Your task to perform on an android device: Search for the most popular coffee table on Crate & Barrel Image 0: 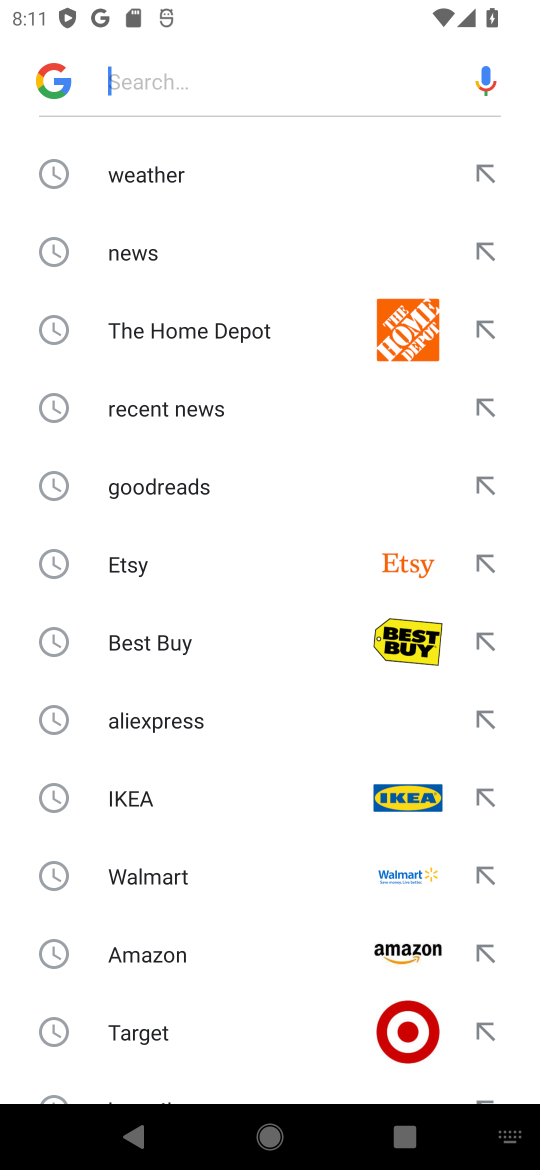
Step 0: press home button
Your task to perform on an android device: Search for the most popular coffee table on Crate & Barrel Image 1: 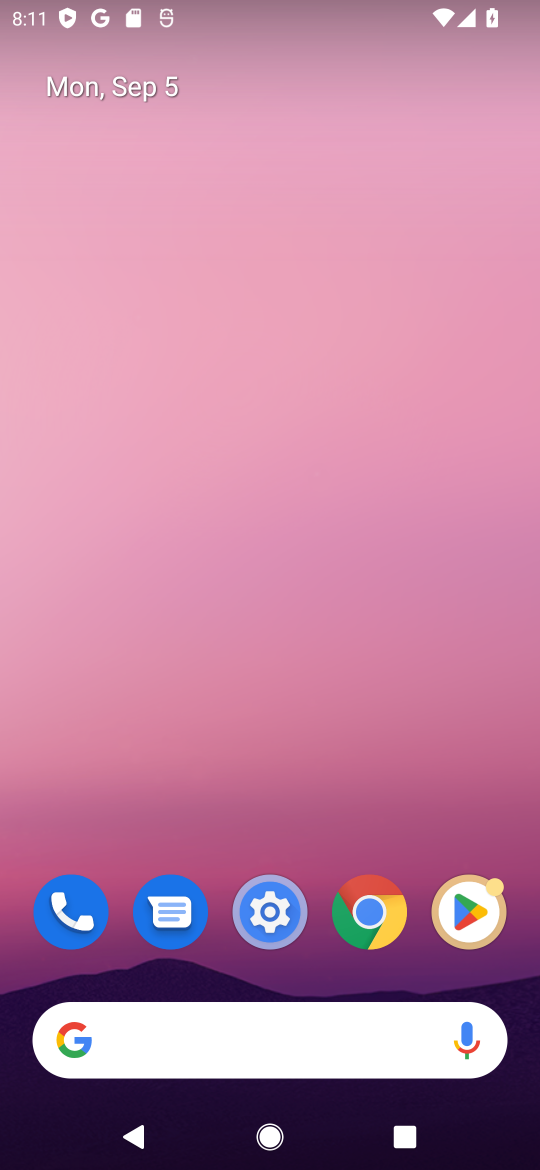
Step 1: click (365, 910)
Your task to perform on an android device: Search for the most popular coffee table on Crate & Barrel Image 2: 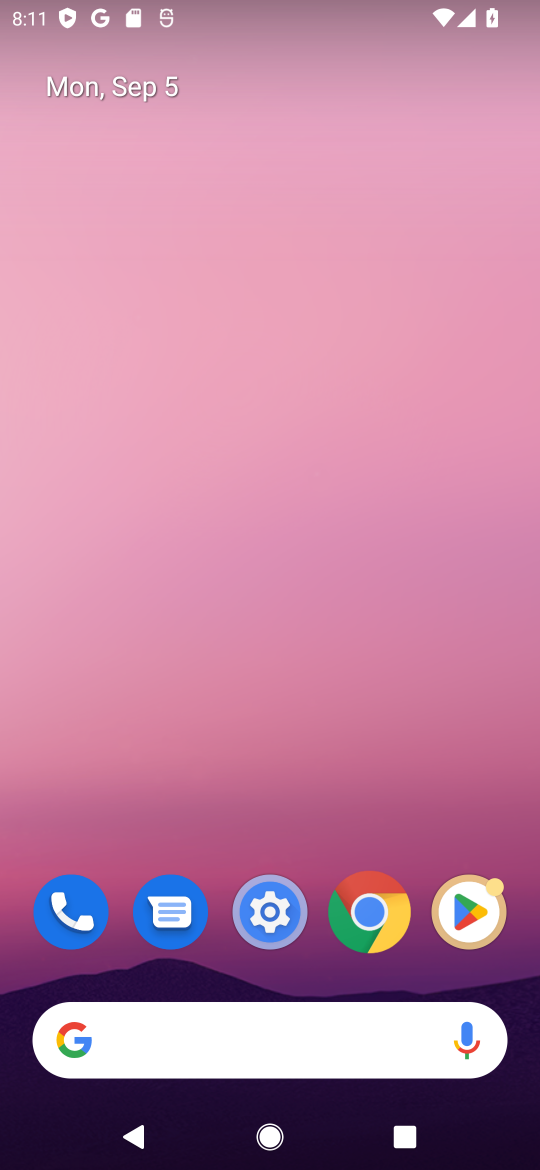
Step 2: click (369, 912)
Your task to perform on an android device: Search for the most popular coffee table on Crate & Barrel Image 3: 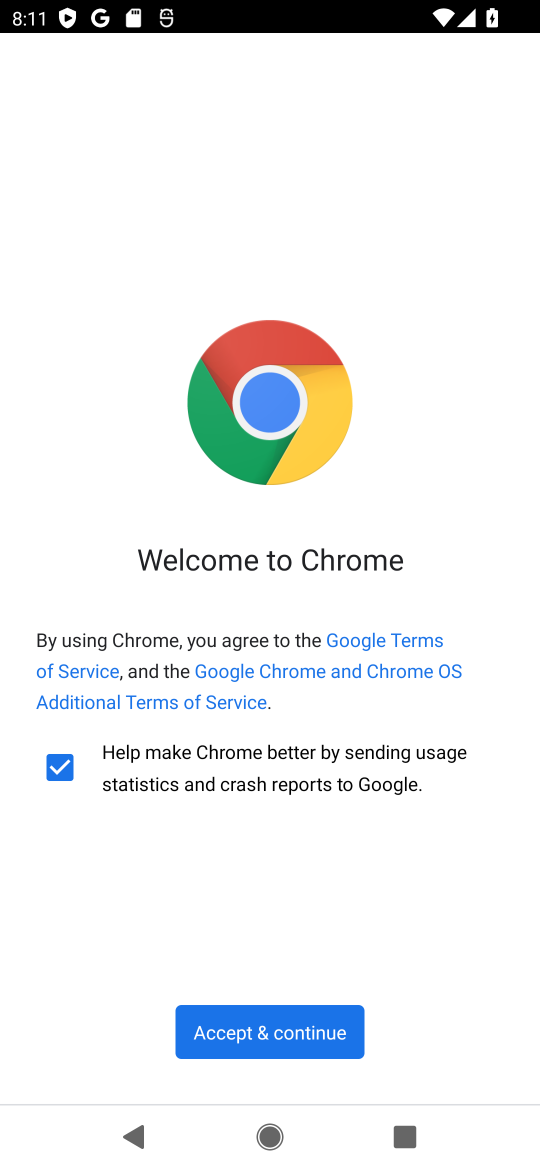
Step 3: click (318, 1032)
Your task to perform on an android device: Search for the most popular coffee table on Crate & Barrel Image 4: 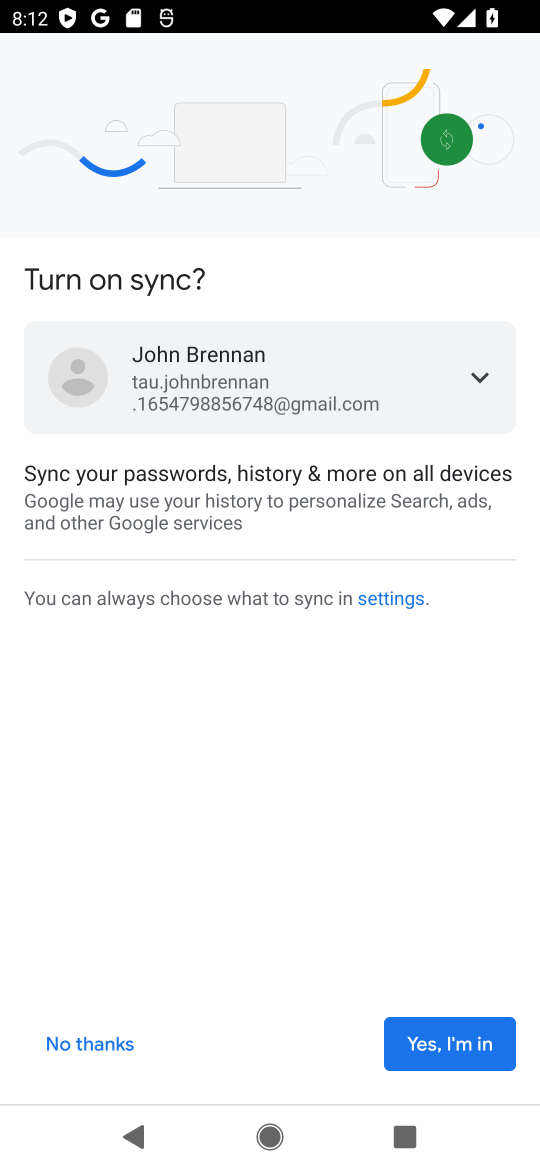
Step 4: click (460, 1044)
Your task to perform on an android device: Search for the most popular coffee table on Crate & Barrel Image 5: 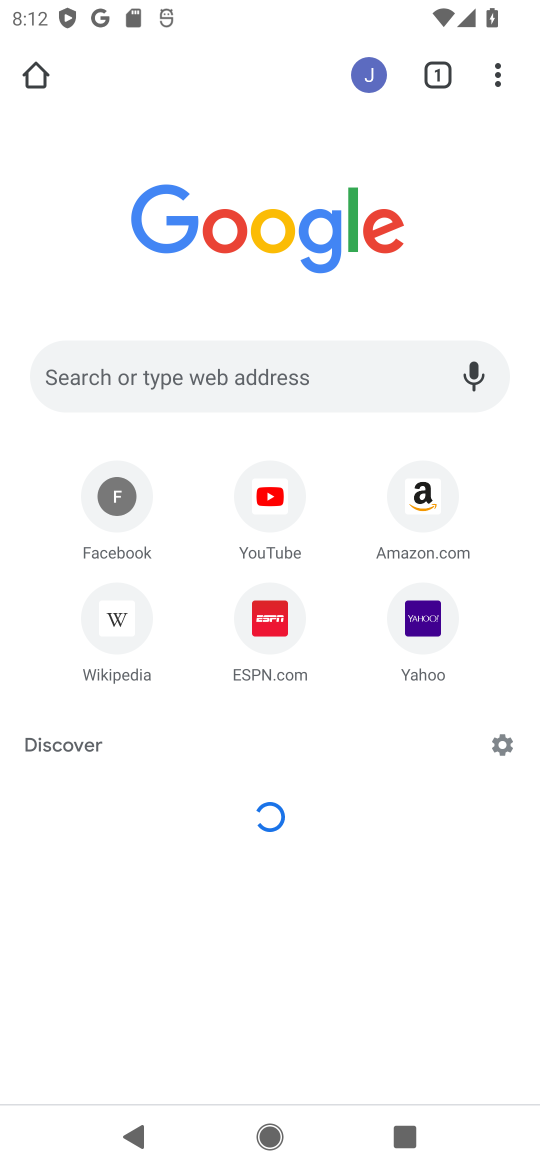
Step 5: click (216, 380)
Your task to perform on an android device: Search for the most popular coffee table on Crate & Barrel Image 6: 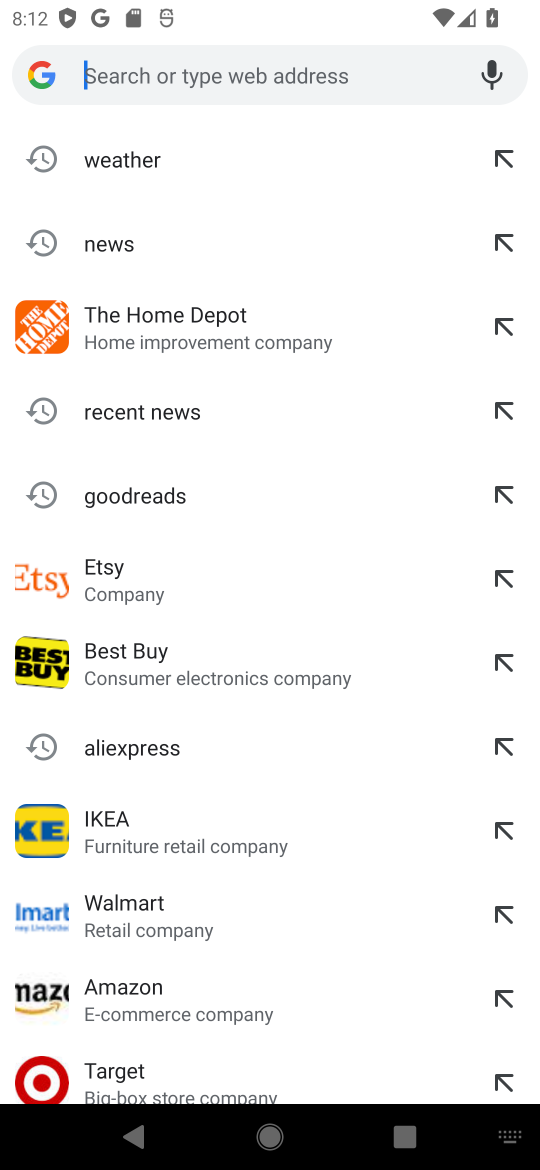
Step 6: type "crate & barrel"
Your task to perform on an android device: Search for the most popular coffee table on Crate & Barrel Image 7: 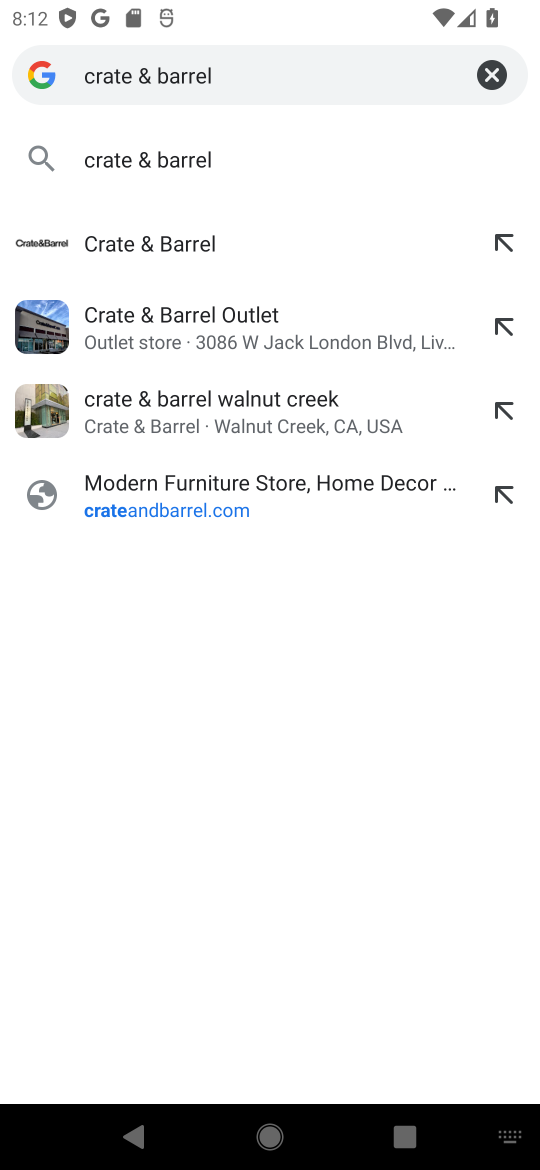
Step 7: press enter
Your task to perform on an android device: Search for the most popular coffee table on Crate & Barrel Image 8: 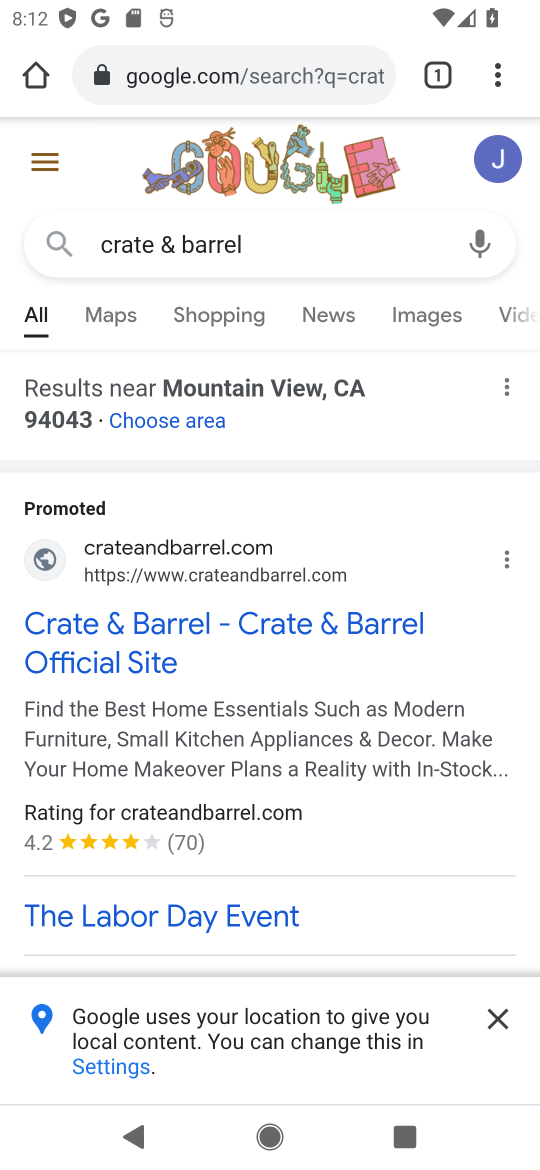
Step 8: click (103, 630)
Your task to perform on an android device: Search for the most popular coffee table on Crate & Barrel Image 9: 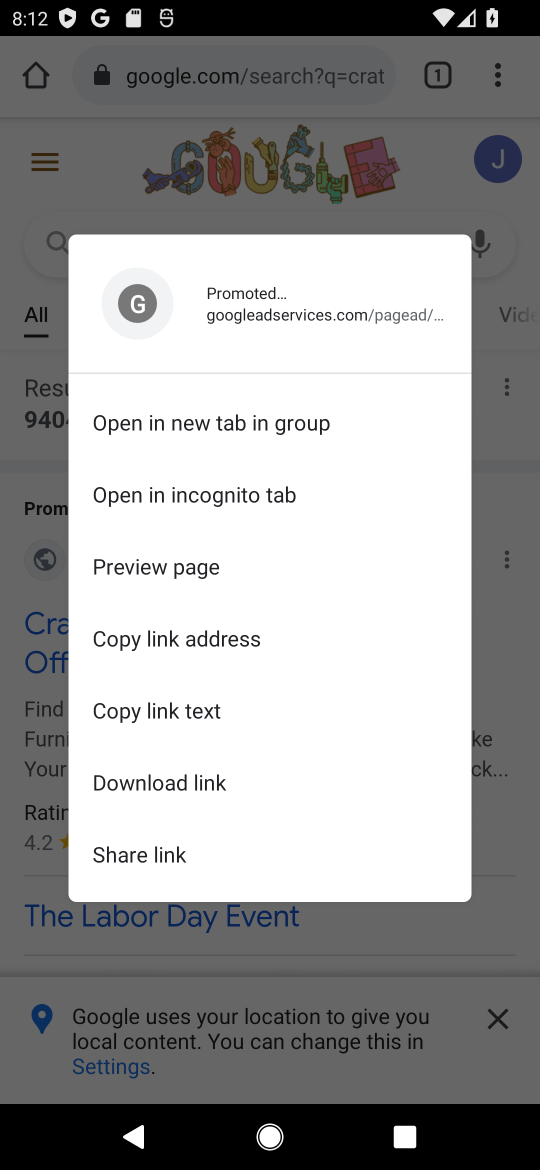
Step 9: click (517, 490)
Your task to perform on an android device: Search for the most popular coffee table on Crate & Barrel Image 10: 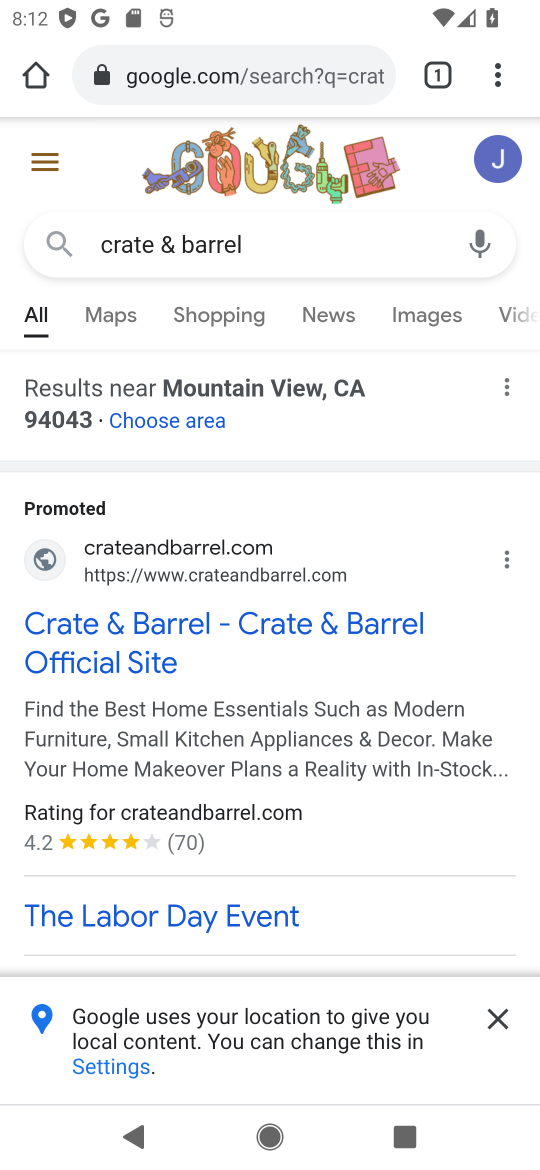
Step 10: click (216, 628)
Your task to perform on an android device: Search for the most popular coffee table on Crate & Barrel Image 11: 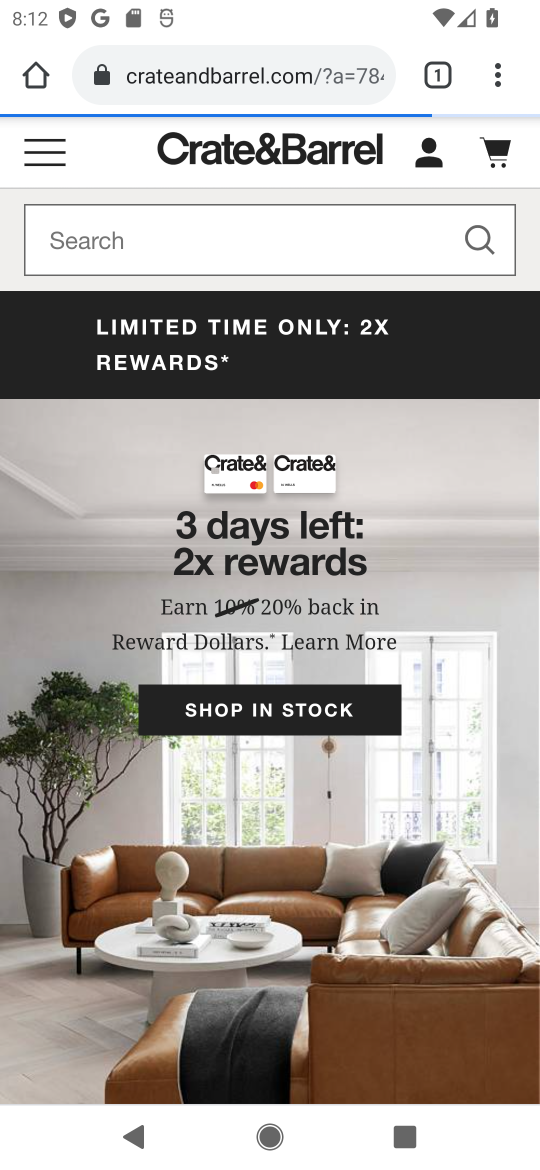
Step 11: click (284, 257)
Your task to perform on an android device: Search for the most popular coffee table on Crate & Barrel Image 12: 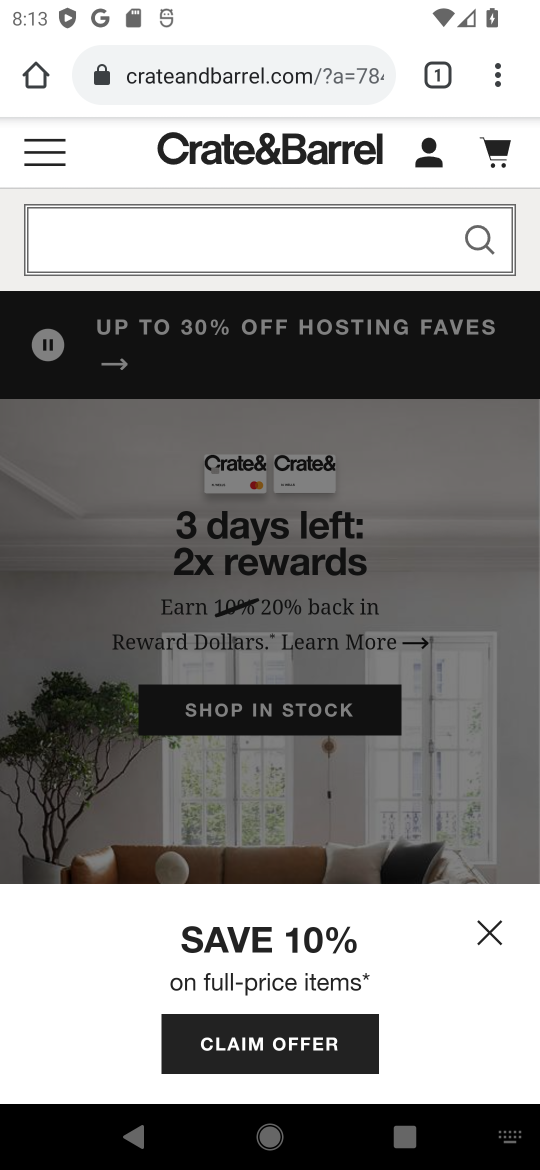
Step 12: type "popular coffee table"
Your task to perform on an android device: Search for the most popular coffee table on Crate & Barrel Image 13: 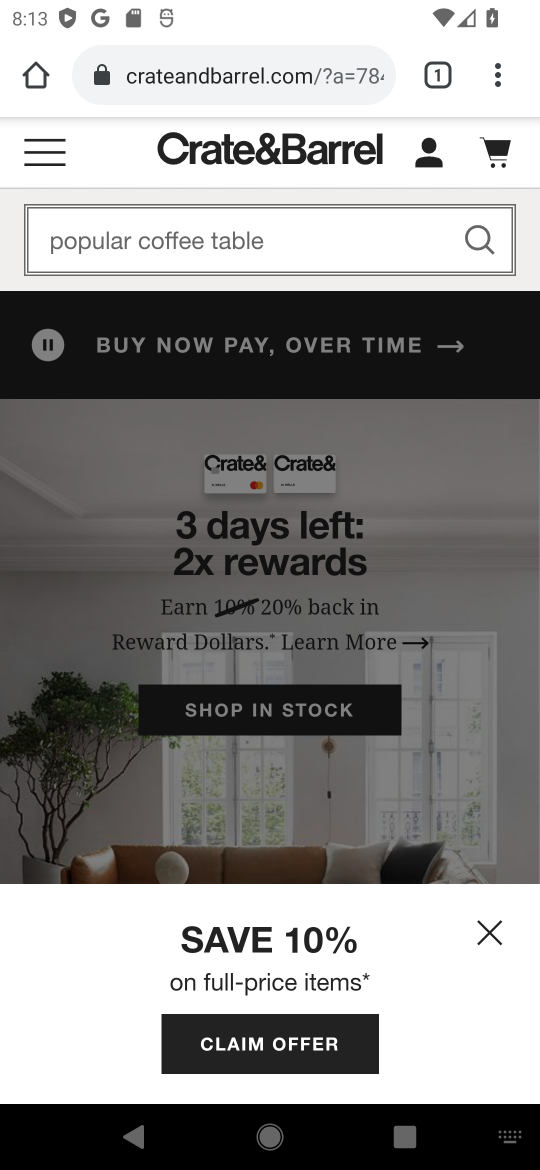
Step 13: press enter
Your task to perform on an android device: Search for the most popular coffee table on Crate & Barrel Image 14: 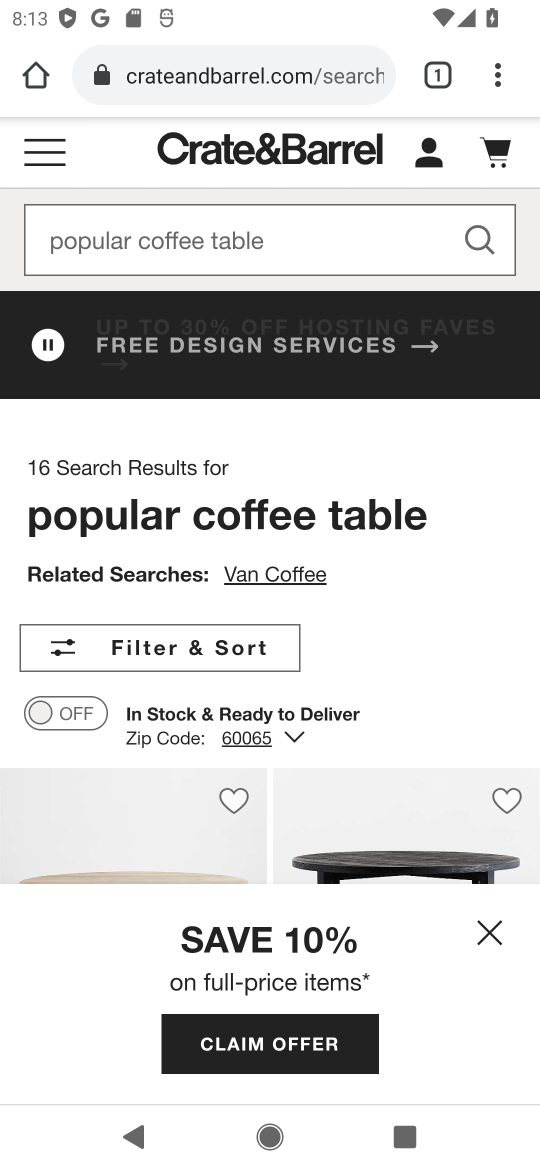
Step 14: click (490, 940)
Your task to perform on an android device: Search for the most popular coffee table on Crate & Barrel Image 15: 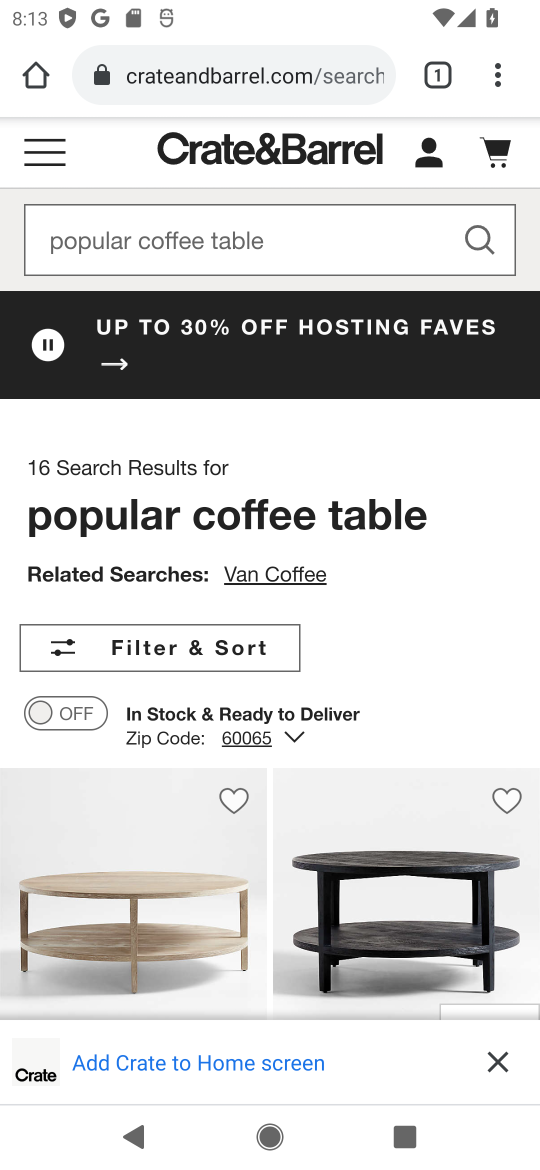
Step 15: click (116, 646)
Your task to perform on an android device: Search for the most popular coffee table on Crate & Barrel Image 16: 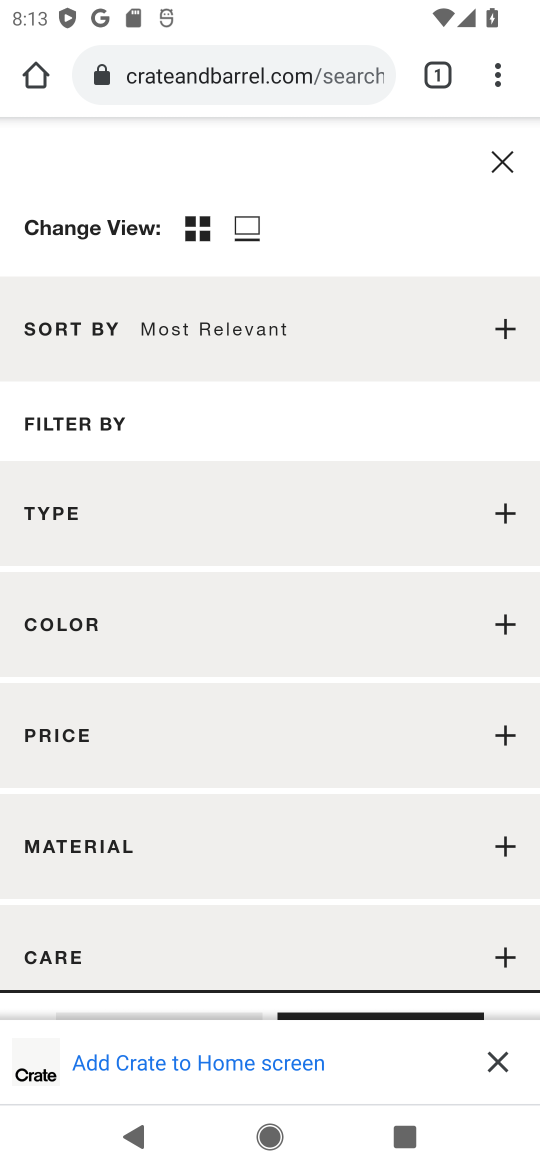
Step 16: click (250, 345)
Your task to perform on an android device: Search for the most popular coffee table on Crate & Barrel Image 17: 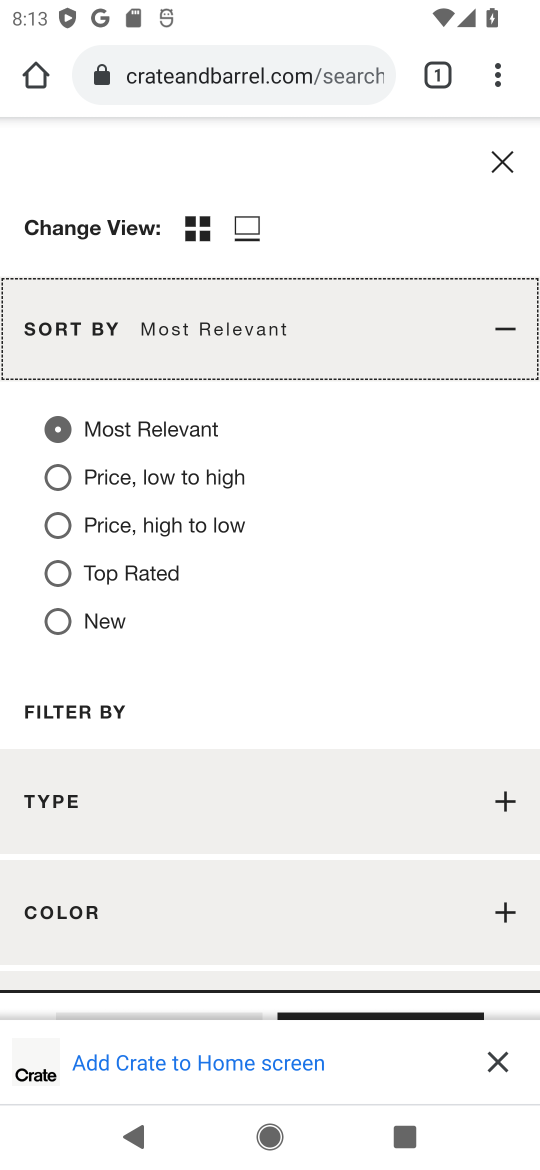
Step 17: click (395, 327)
Your task to perform on an android device: Search for the most popular coffee table on Crate & Barrel Image 18: 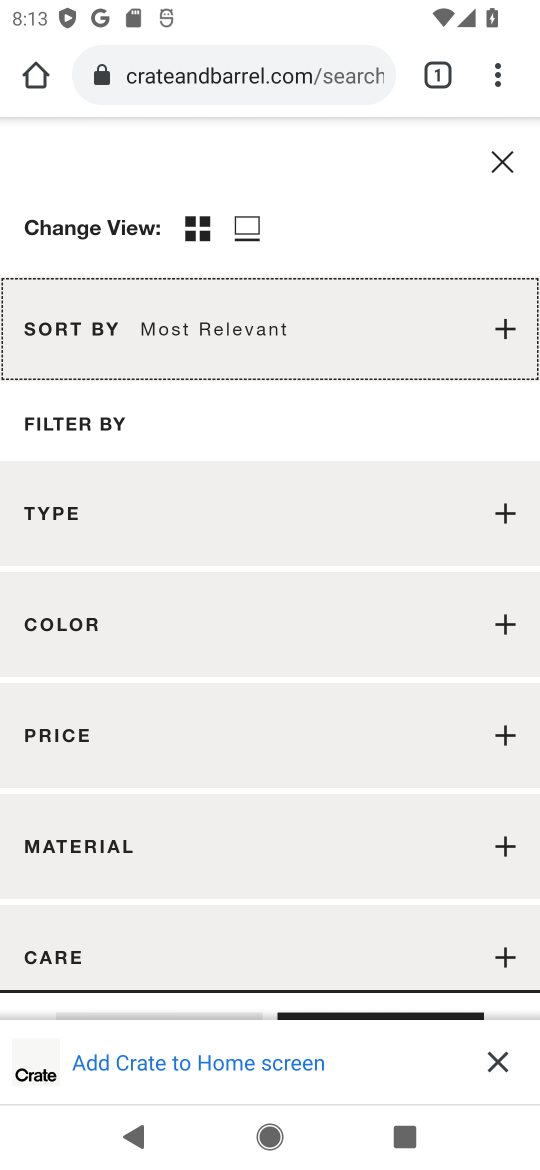
Step 18: drag from (348, 876) to (367, 392)
Your task to perform on an android device: Search for the most popular coffee table on Crate & Barrel Image 19: 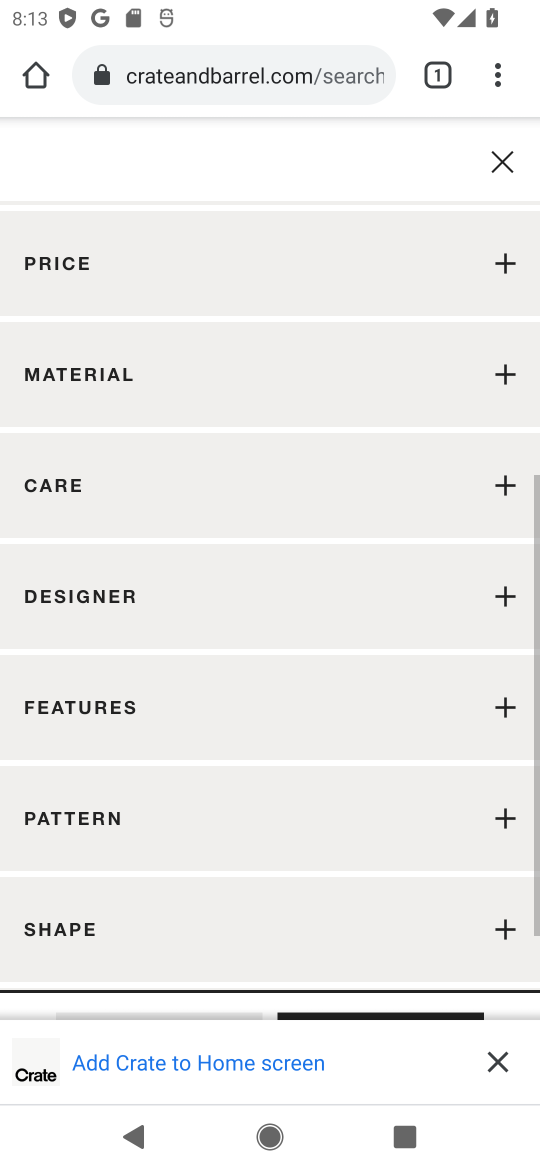
Step 19: drag from (308, 541) to (315, 289)
Your task to perform on an android device: Search for the most popular coffee table on Crate & Barrel Image 20: 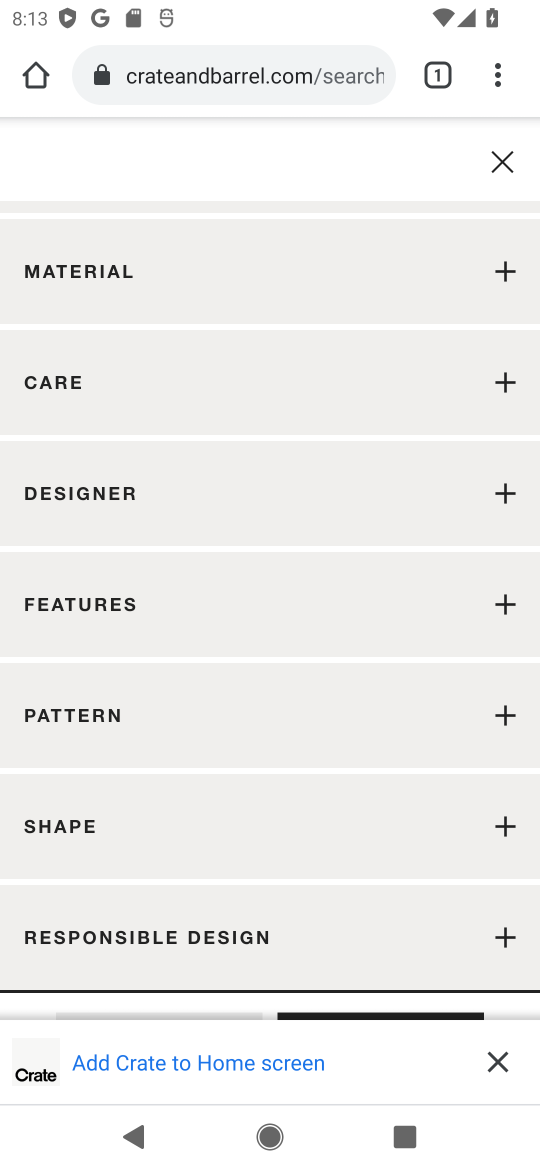
Step 20: click (500, 1058)
Your task to perform on an android device: Search for the most popular coffee table on Crate & Barrel Image 21: 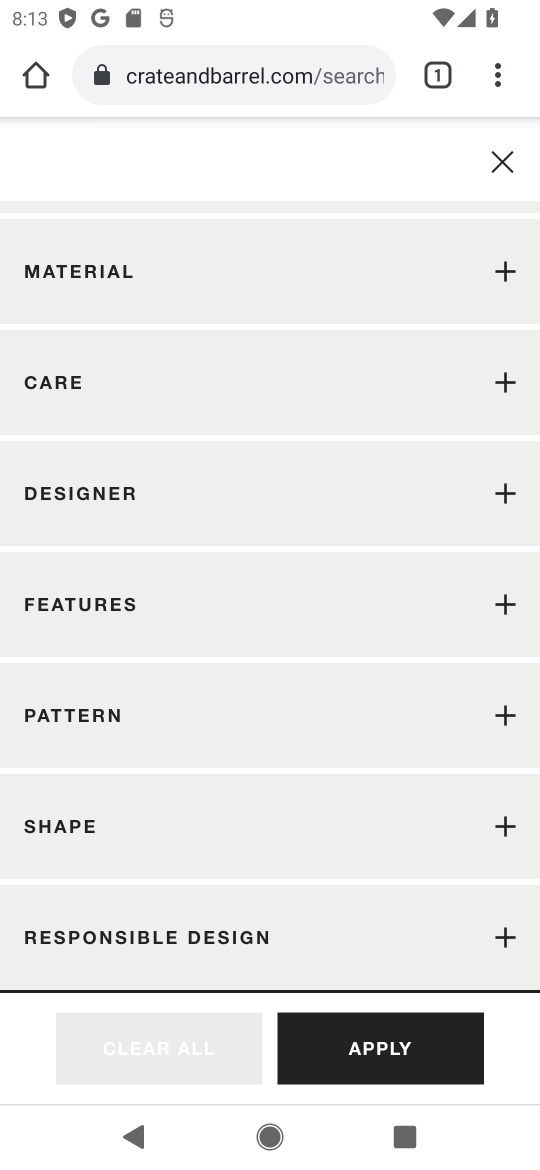
Step 21: click (507, 171)
Your task to perform on an android device: Search for the most popular coffee table on Crate & Barrel Image 22: 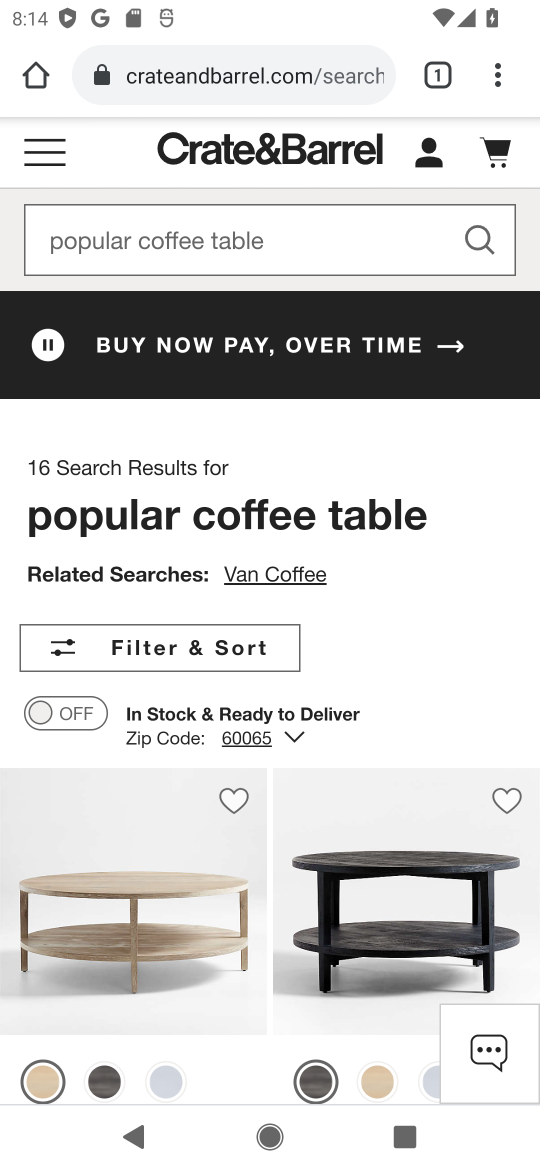
Step 22: task complete